Your task to perform on an android device: open app "Google Home" Image 0: 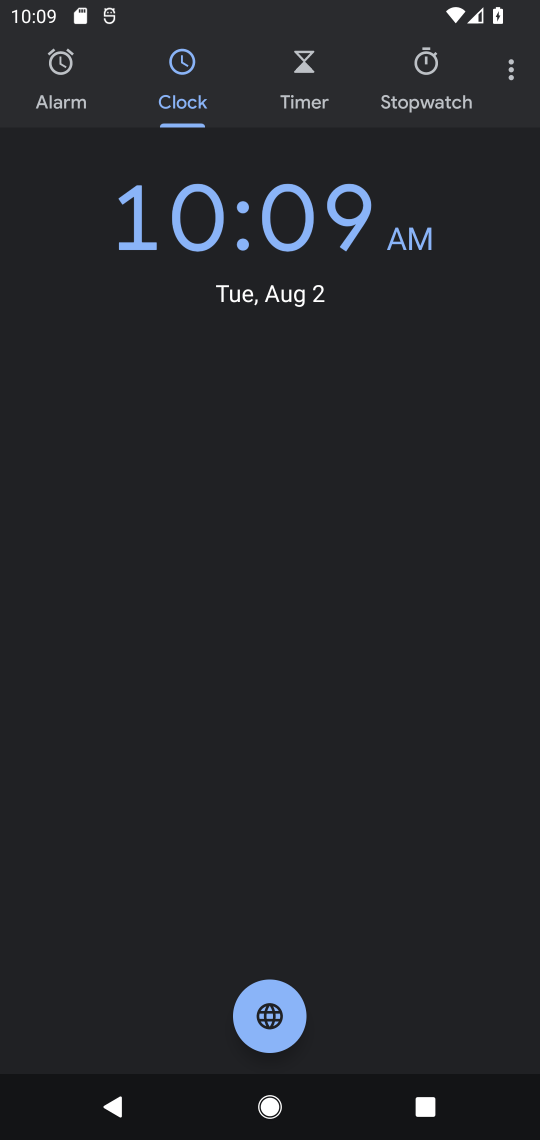
Step 0: press home button
Your task to perform on an android device: open app "Google Home" Image 1: 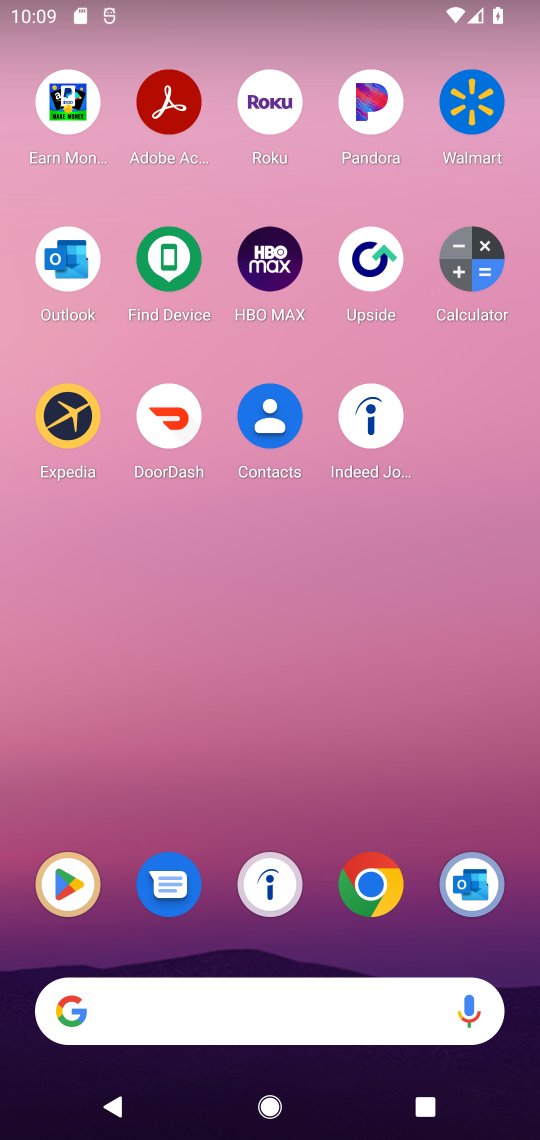
Step 1: click (77, 878)
Your task to perform on an android device: open app "Google Home" Image 2: 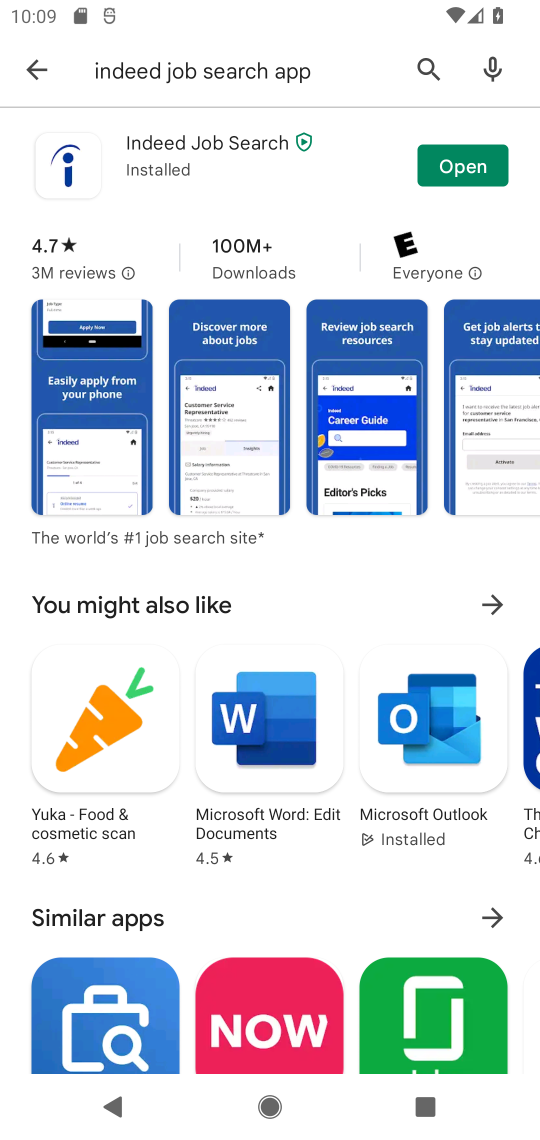
Step 2: click (206, 67)
Your task to perform on an android device: open app "Google Home" Image 3: 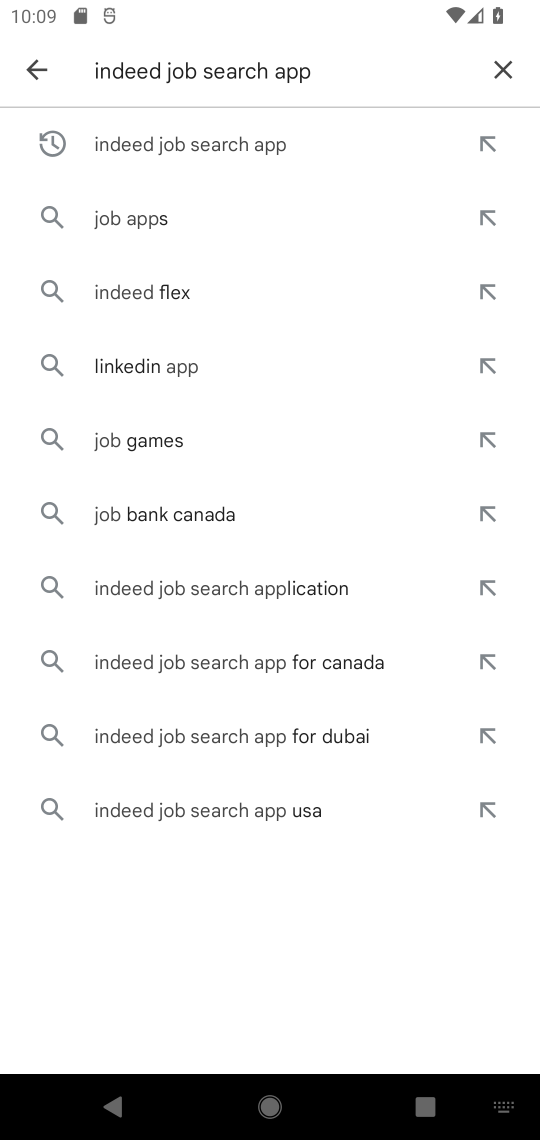
Step 3: click (507, 77)
Your task to perform on an android device: open app "Google Home" Image 4: 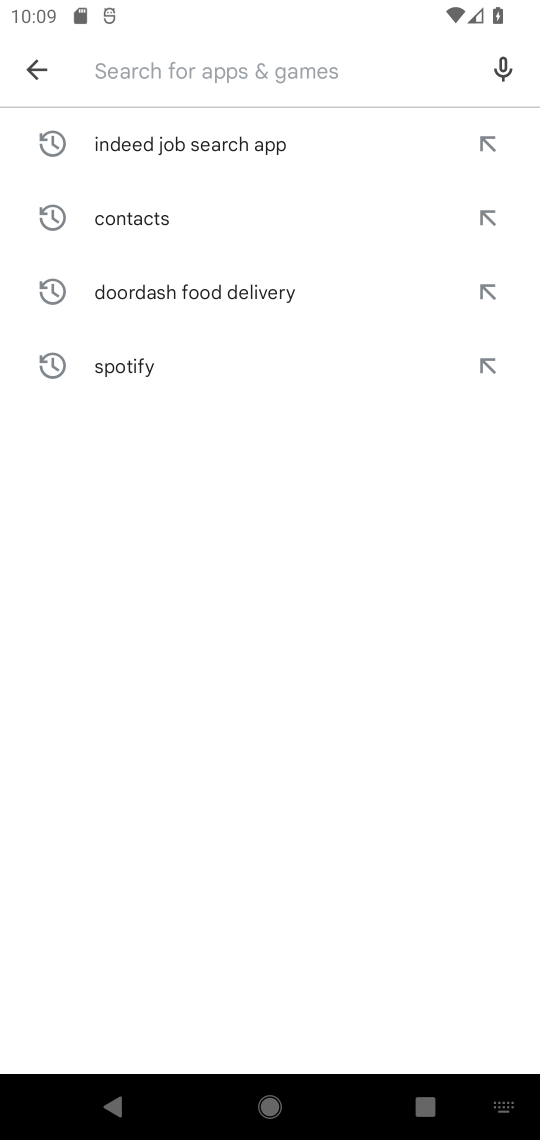
Step 4: type "google home"
Your task to perform on an android device: open app "Google Home" Image 5: 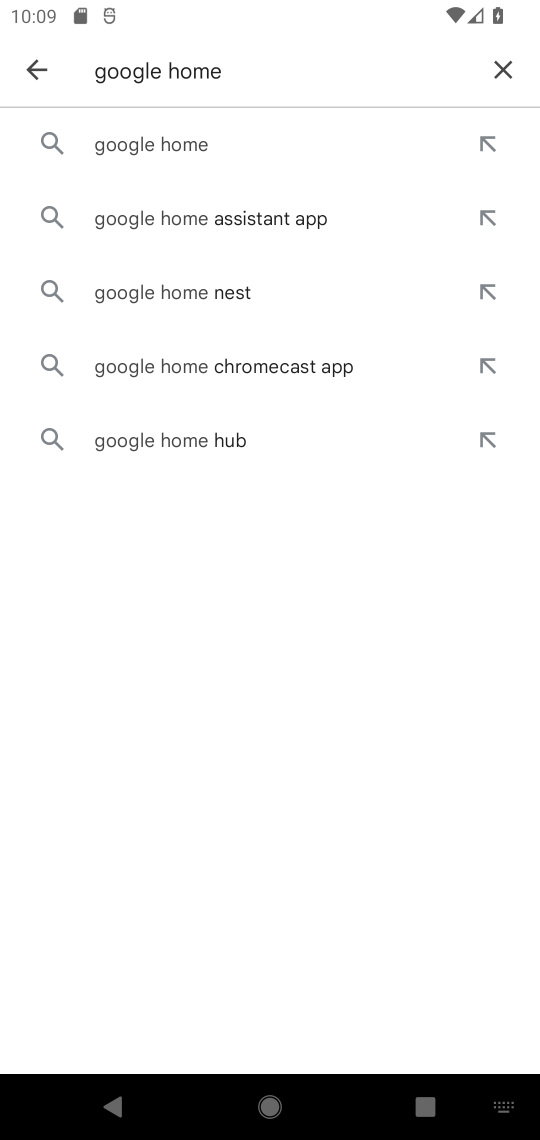
Step 5: click (173, 159)
Your task to perform on an android device: open app "Google Home" Image 6: 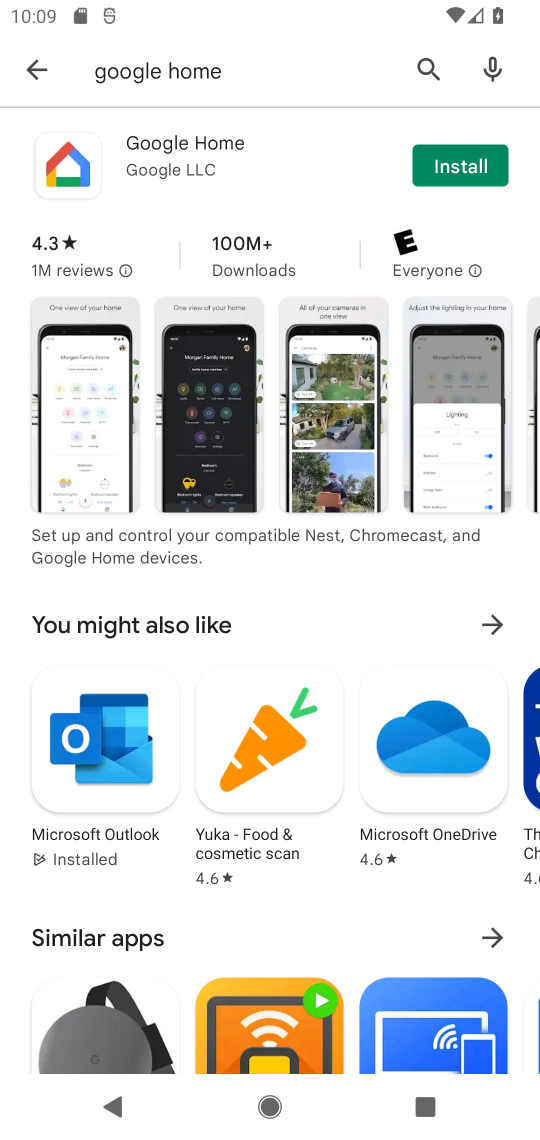
Step 6: task complete